Your task to perform on an android device: Go to notification settings Image 0: 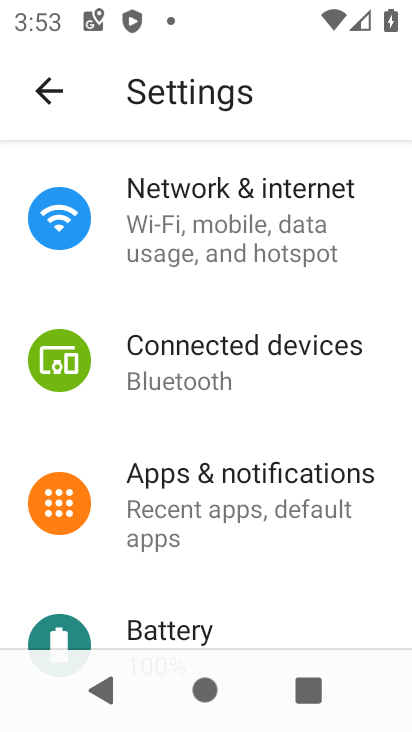
Step 0: click (274, 497)
Your task to perform on an android device: Go to notification settings Image 1: 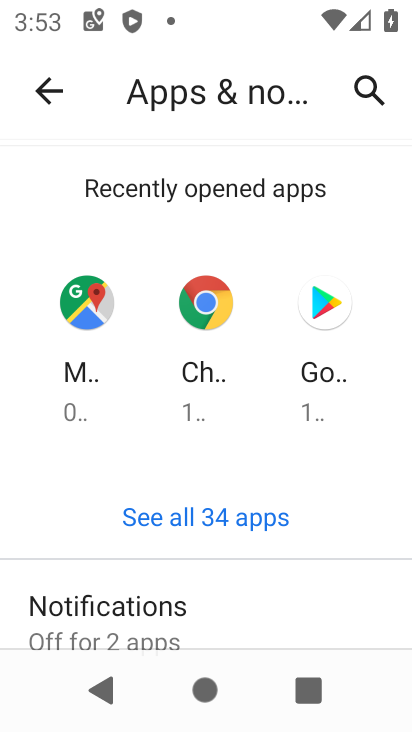
Step 1: drag from (231, 505) to (272, 207)
Your task to perform on an android device: Go to notification settings Image 2: 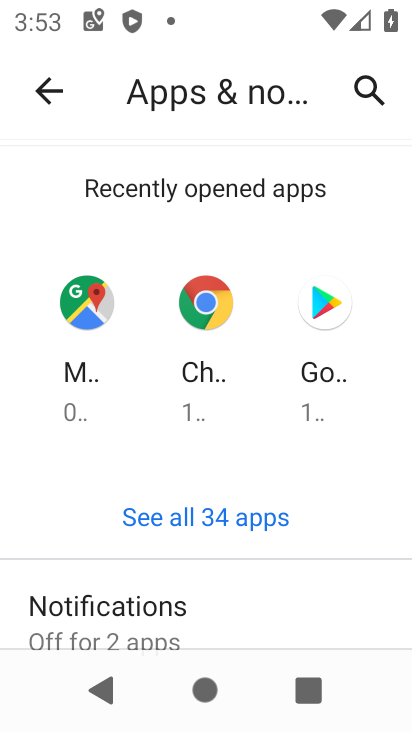
Step 2: drag from (226, 572) to (261, 211)
Your task to perform on an android device: Go to notification settings Image 3: 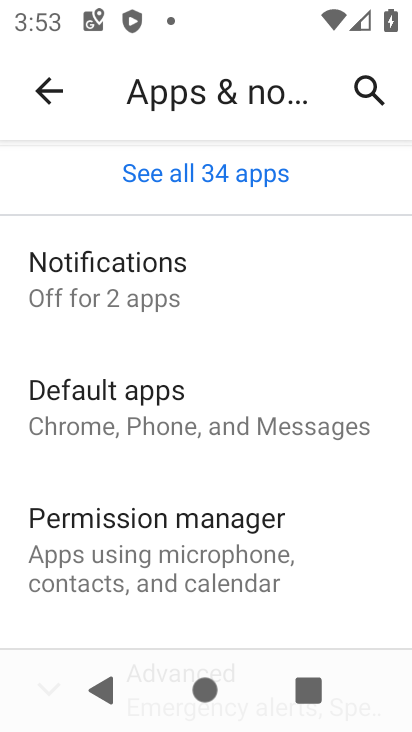
Step 3: click (105, 296)
Your task to perform on an android device: Go to notification settings Image 4: 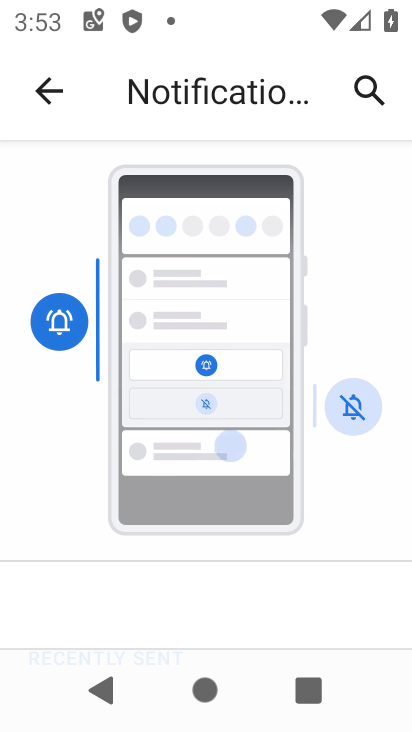
Step 4: task complete